Your task to perform on an android device: Go to Google maps Image 0: 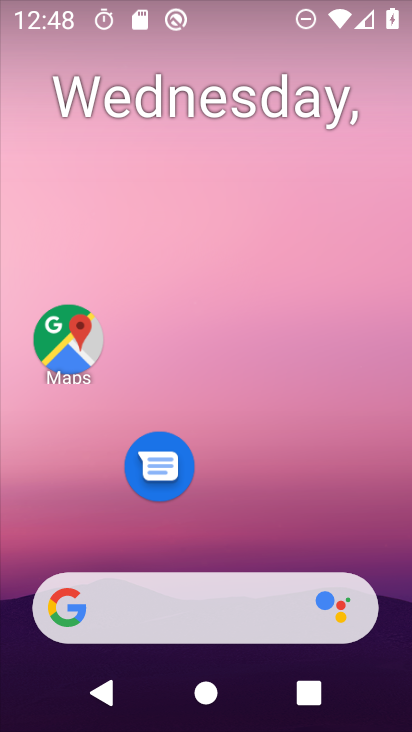
Step 0: click (73, 348)
Your task to perform on an android device: Go to Google maps Image 1: 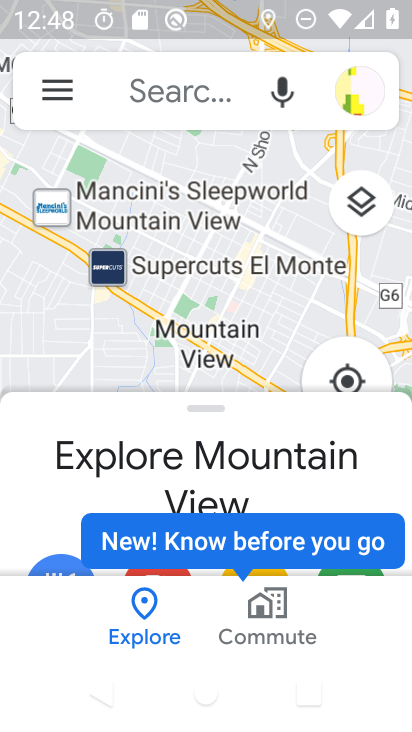
Step 1: task complete